Your task to perform on an android device: find which apps use the phone's location Image 0: 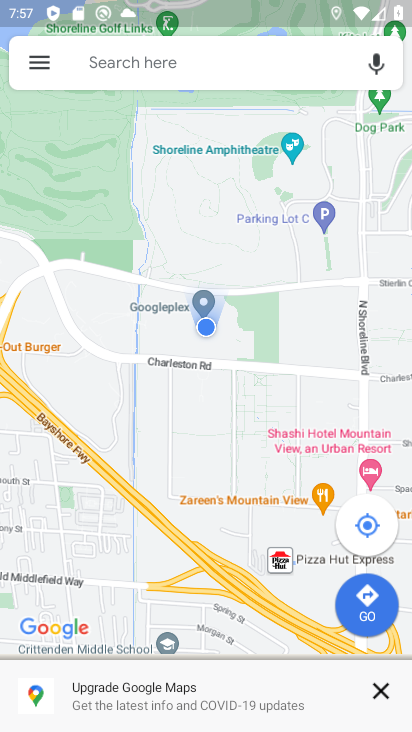
Step 0: press home button
Your task to perform on an android device: find which apps use the phone's location Image 1: 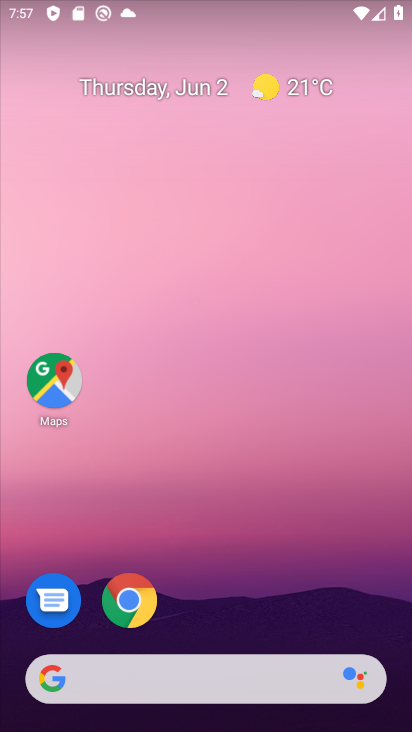
Step 1: drag from (346, 625) to (346, 152)
Your task to perform on an android device: find which apps use the phone's location Image 2: 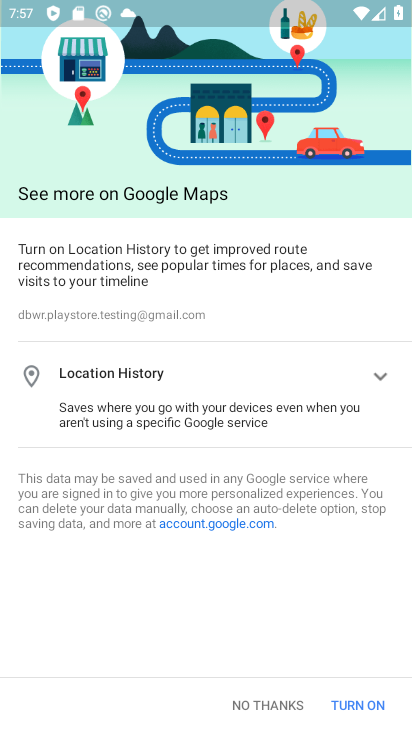
Step 2: click (269, 707)
Your task to perform on an android device: find which apps use the phone's location Image 3: 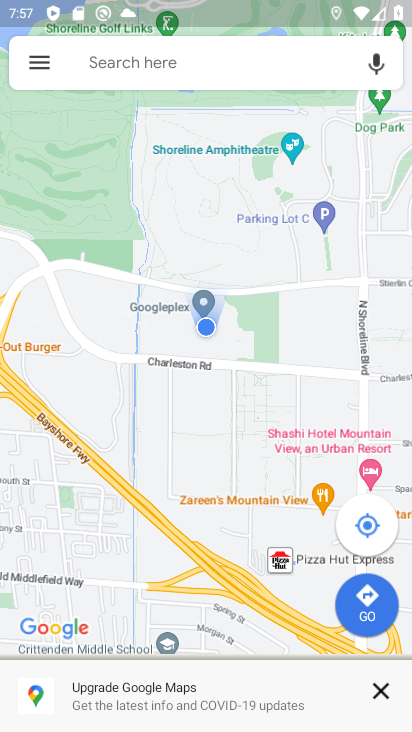
Step 3: press back button
Your task to perform on an android device: find which apps use the phone's location Image 4: 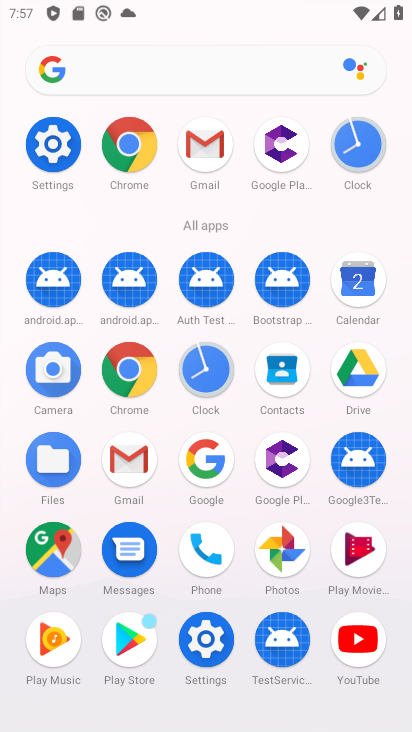
Step 4: click (214, 656)
Your task to perform on an android device: find which apps use the phone's location Image 5: 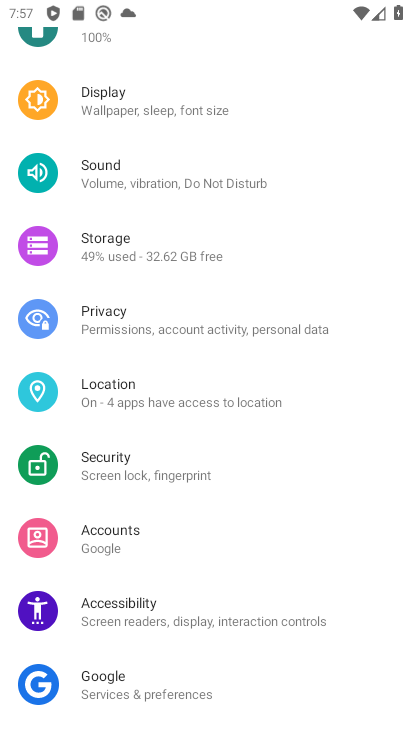
Step 5: click (224, 407)
Your task to perform on an android device: find which apps use the phone's location Image 6: 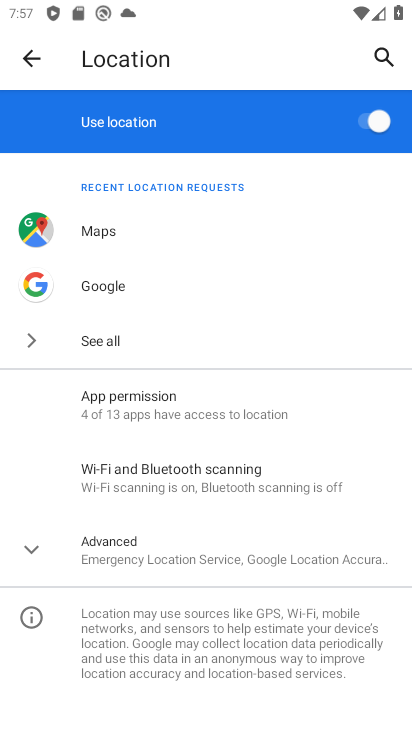
Step 6: click (191, 404)
Your task to perform on an android device: find which apps use the phone's location Image 7: 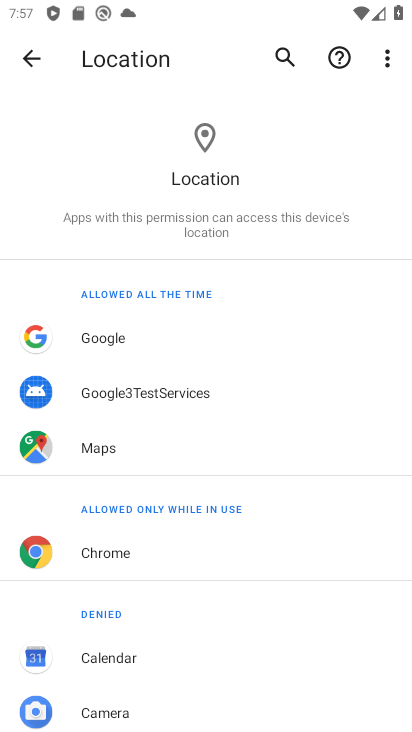
Step 7: drag from (275, 460) to (304, 356)
Your task to perform on an android device: find which apps use the phone's location Image 8: 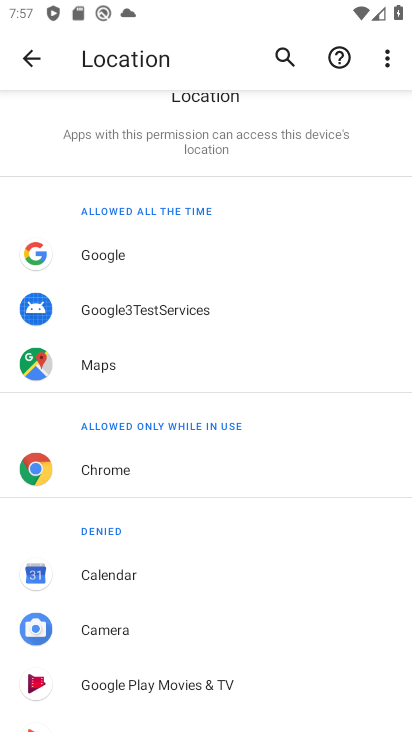
Step 8: drag from (325, 499) to (321, 370)
Your task to perform on an android device: find which apps use the phone's location Image 9: 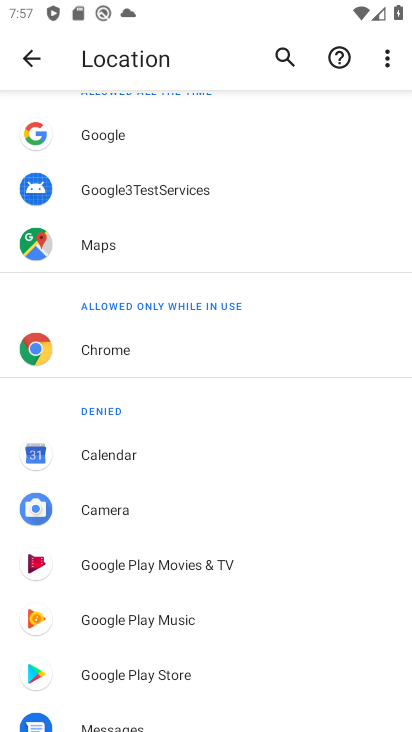
Step 9: drag from (315, 506) to (309, 390)
Your task to perform on an android device: find which apps use the phone's location Image 10: 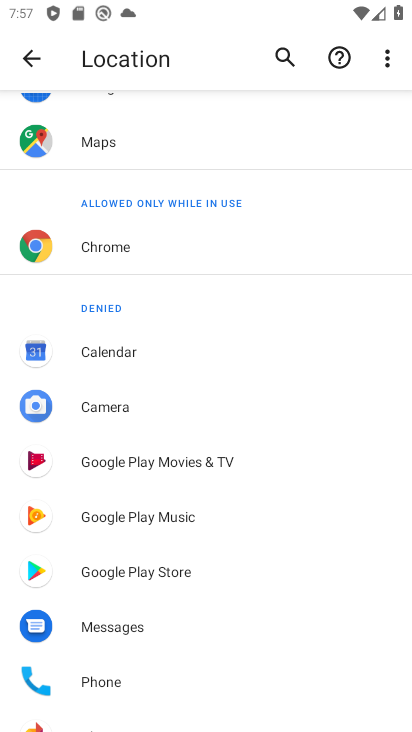
Step 10: drag from (290, 541) to (301, 394)
Your task to perform on an android device: find which apps use the phone's location Image 11: 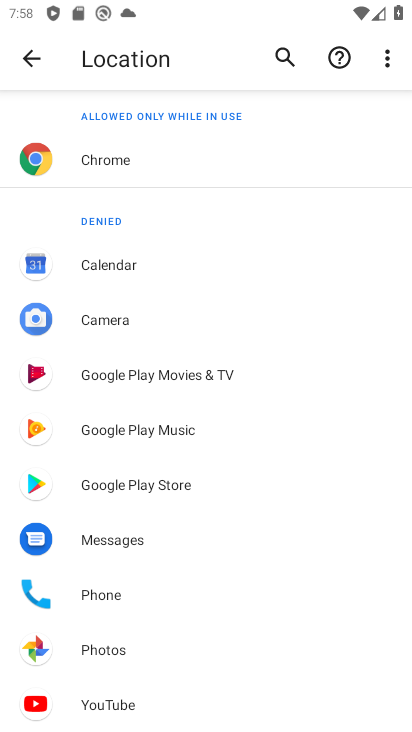
Step 11: click (141, 653)
Your task to perform on an android device: find which apps use the phone's location Image 12: 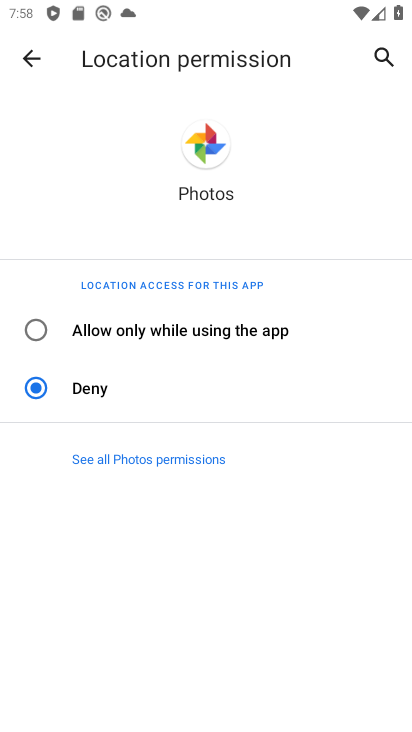
Step 12: click (199, 340)
Your task to perform on an android device: find which apps use the phone's location Image 13: 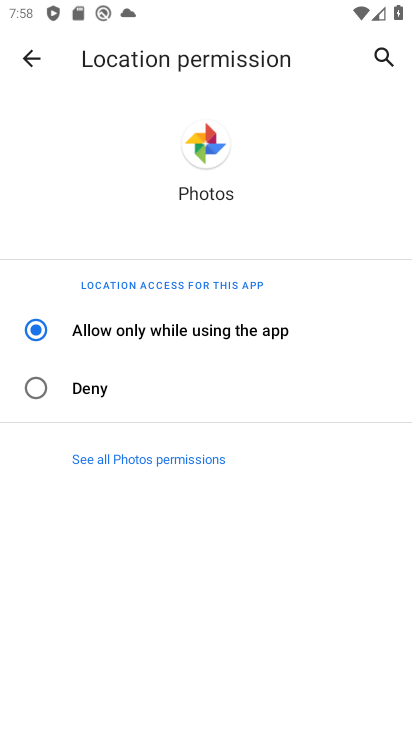
Step 13: task complete